Your task to perform on an android device: open chrome privacy settings Image 0: 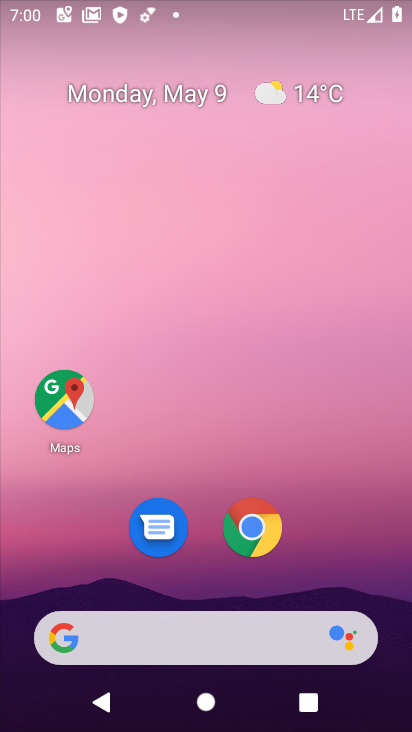
Step 0: click (250, 531)
Your task to perform on an android device: open chrome privacy settings Image 1: 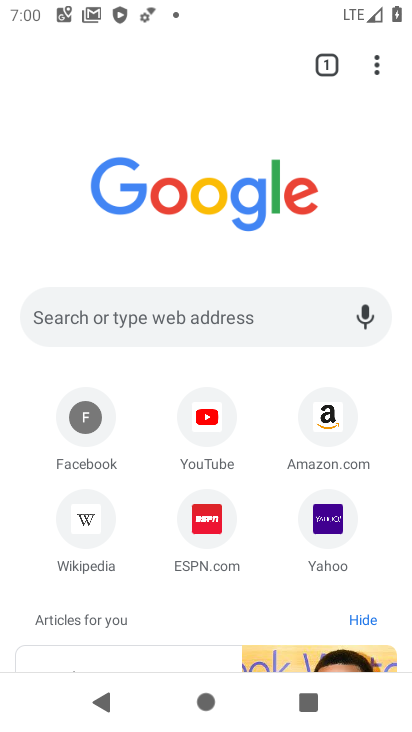
Step 1: click (377, 69)
Your task to perform on an android device: open chrome privacy settings Image 2: 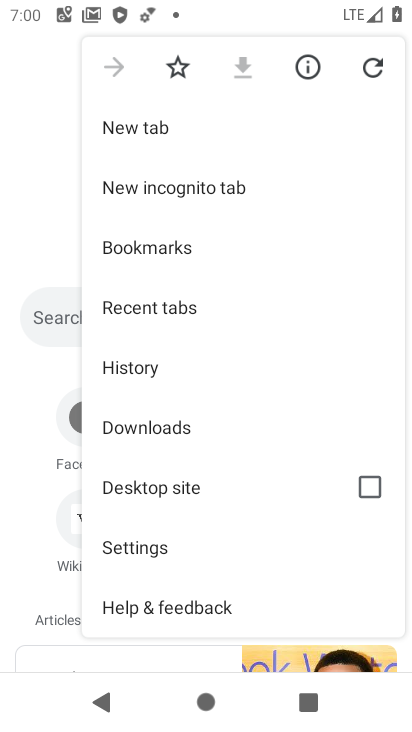
Step 2: click (146, 547)
Your task to perform on an android device: open chrome privacy settings Image 3: 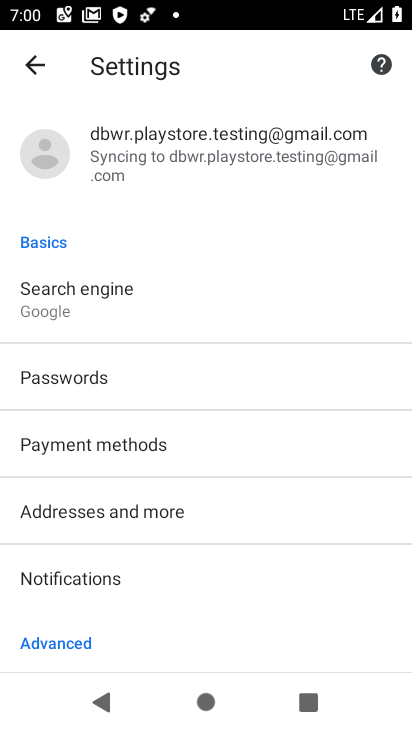
Step 3: drag from (138, 594) to (180, 446)
Your task to perform on an android device: open chrome privacy settings Image 4: 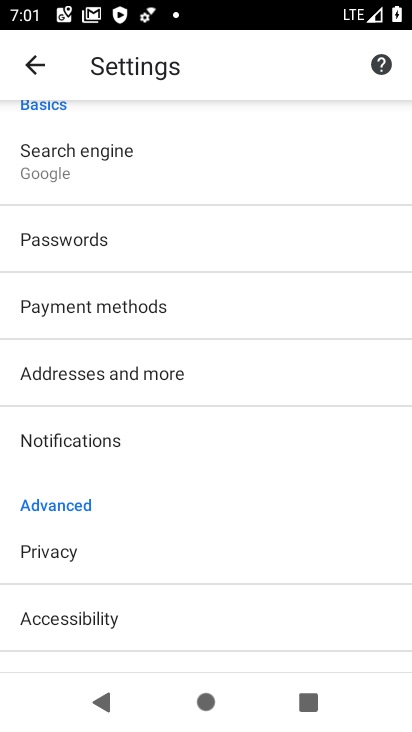
Step 4: click (69, 550)
Your task to perform on an android device: open chrome privacy settings Image 5: 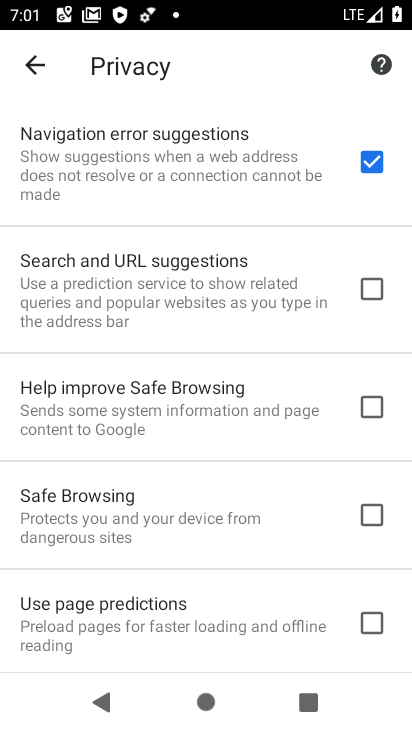
Step 5: task complete